Your task to perform on an android device: Go to Reddit.com Image 0: 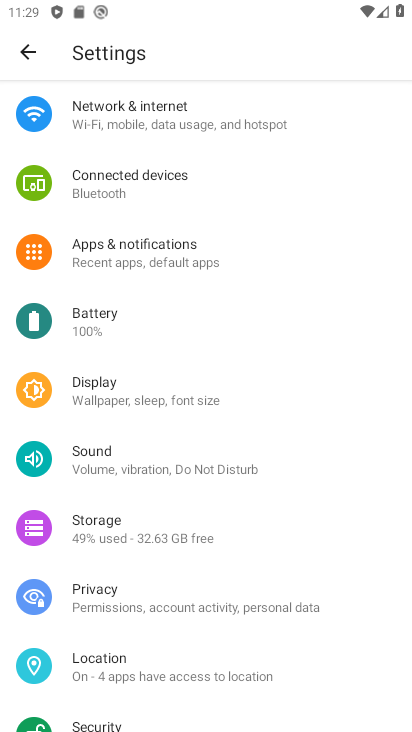
Step 0: press home button
Your task to perform on an android device: Go to Reddit.com Image 1: 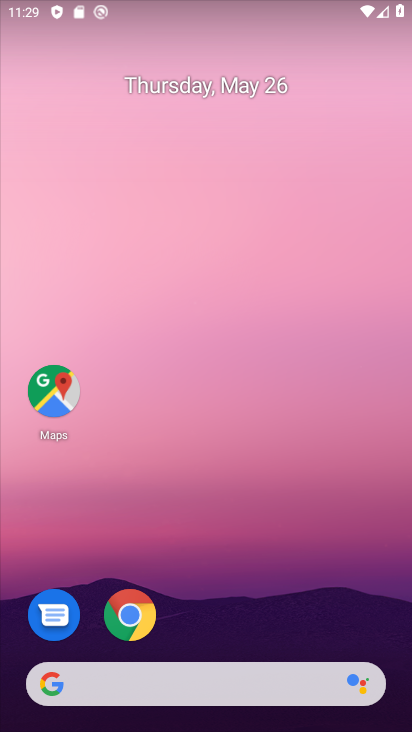
Step 1: click (107, 615)
Your task to perform on an android device: Go to Reddit.com Image 2: 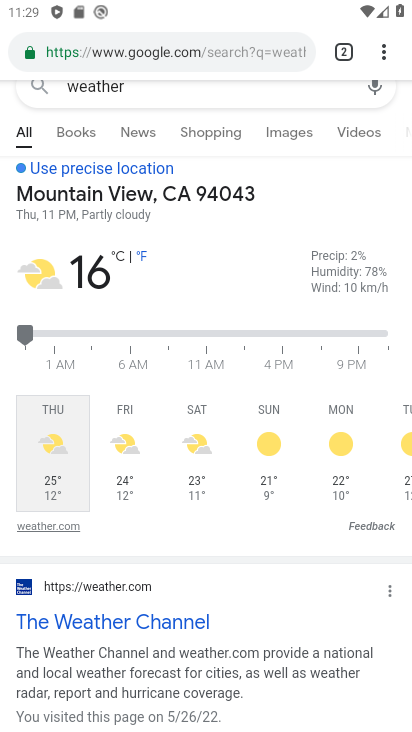
Step 2: click (217, 53)
Your task to perform on an android device: Go to Reddit.com Image 3: 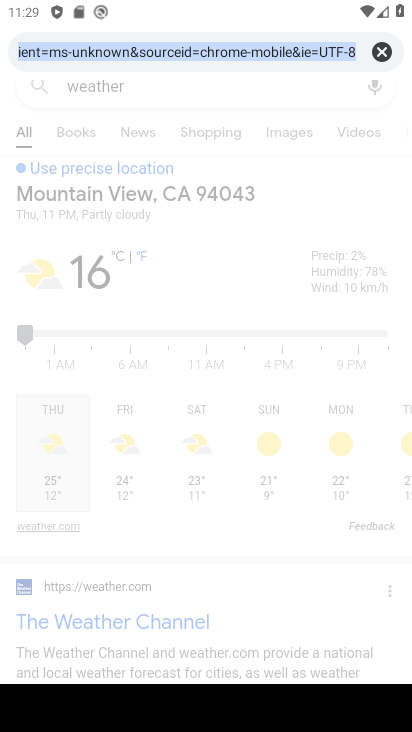
Step 3: click (378, 53)
Your task to perform on an android device: Go to Reddit.com Image 4: 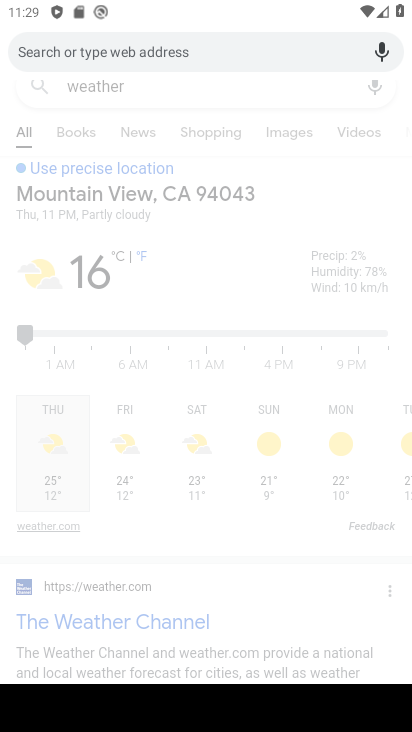
Step 4: type " Reddit.com"
Your task to perform on an android device: Go to Reddit.com Image 5: 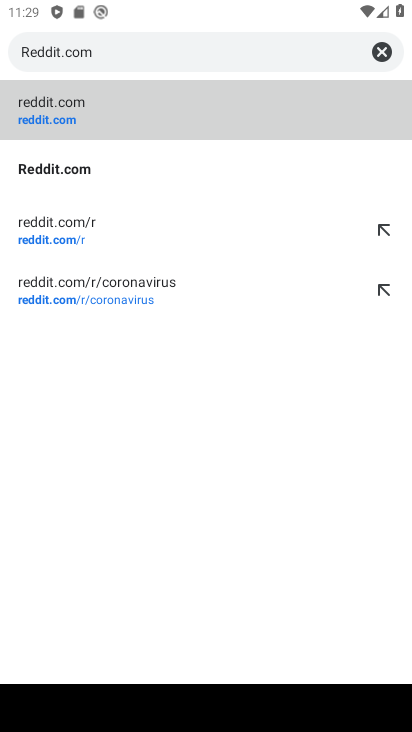
Step 5: click (88, 128)
Your task to perform on an android device: Go to Reddit.com Image 6: 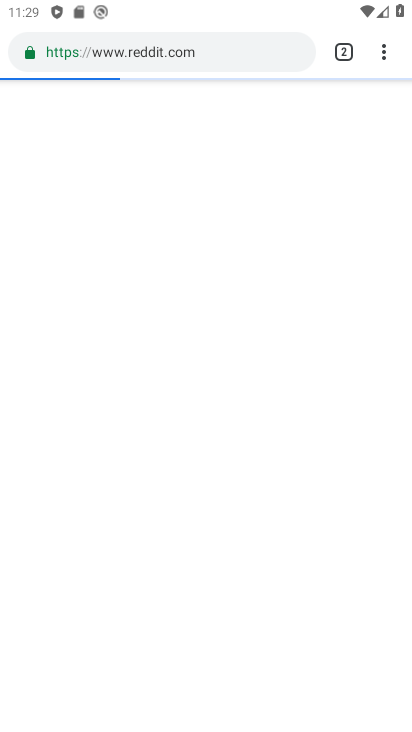
Step 6: task complete